Your task to perform on an android device: delete location history Image 0: 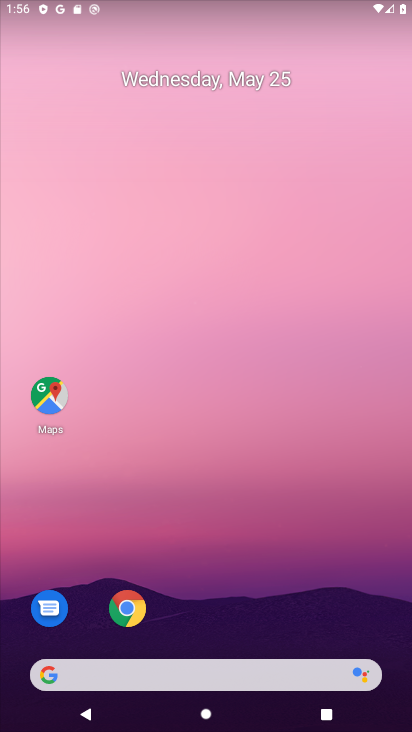
Step 0: drag from (182, 639) to (248, 85)
Your task to perform on an android device: delete location history Image 1: 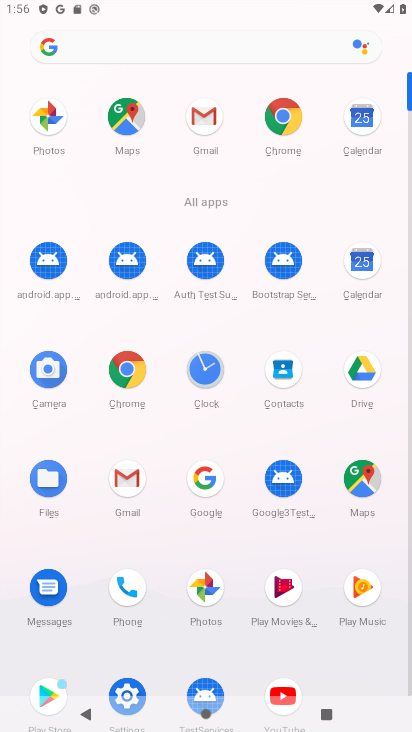
Step 1: drag from (122, 678) to (221, 350)
Your task to perform on an android device: delete location history Image 2: 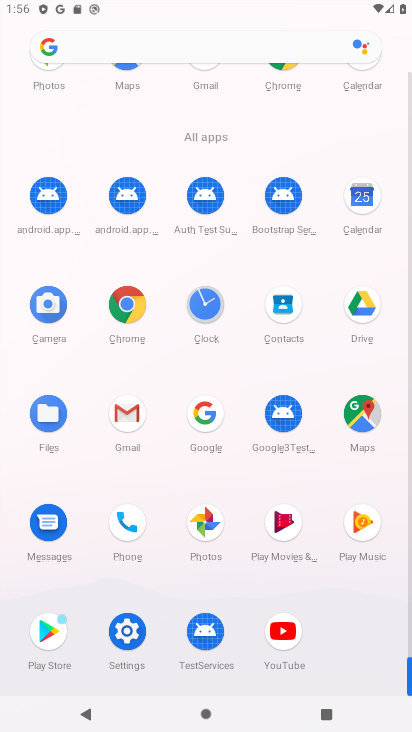
Step 2: click (129, 640)
Your task to perform on an android device: delete location history Image 3: 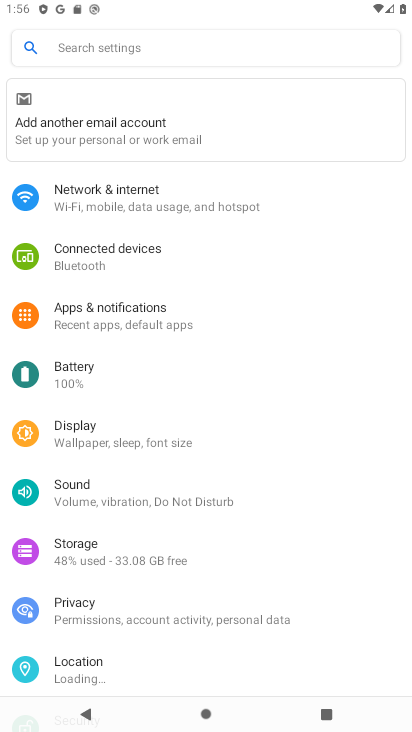
Step 3: drag from (132, 452) to (193, 162)
Your task to perform on an android device: delete location history Image 4: 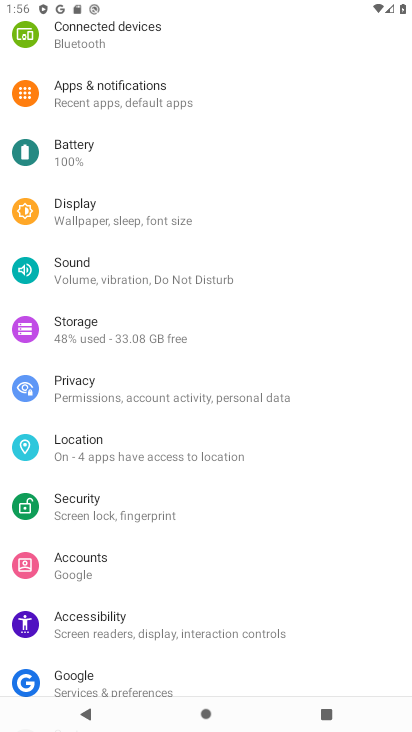
Step 4: click (130, 447)
Your task to perform on an android device: delete location history Image 5: 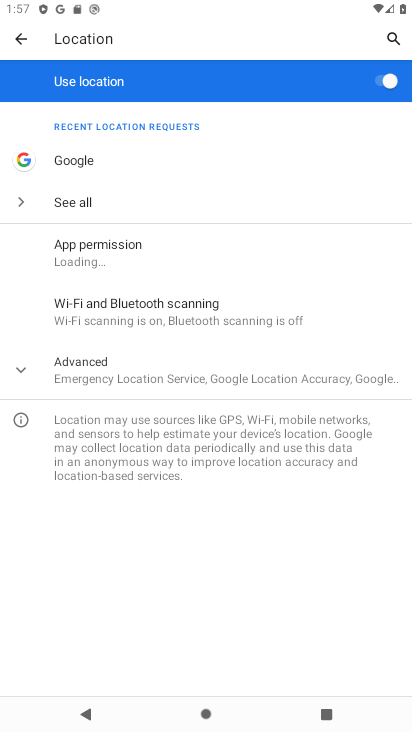
Step 5: click (66, 367)
Your task to perform on an android device: delete location history Image 6: 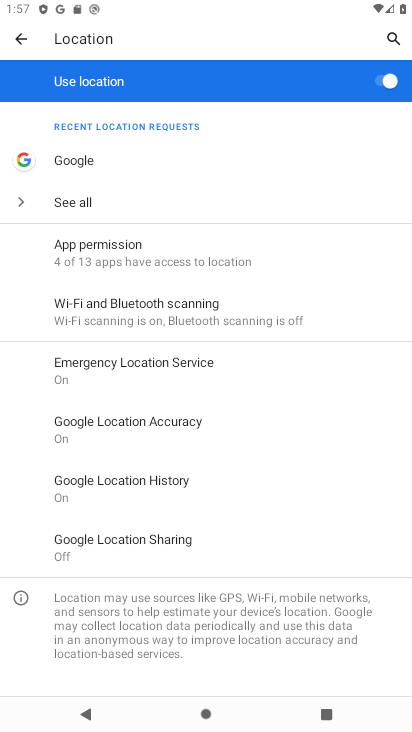
Step 6: task complete